Your task to perform on an android device: open app "DuckDuckGo Privacy Browser" Image 0: 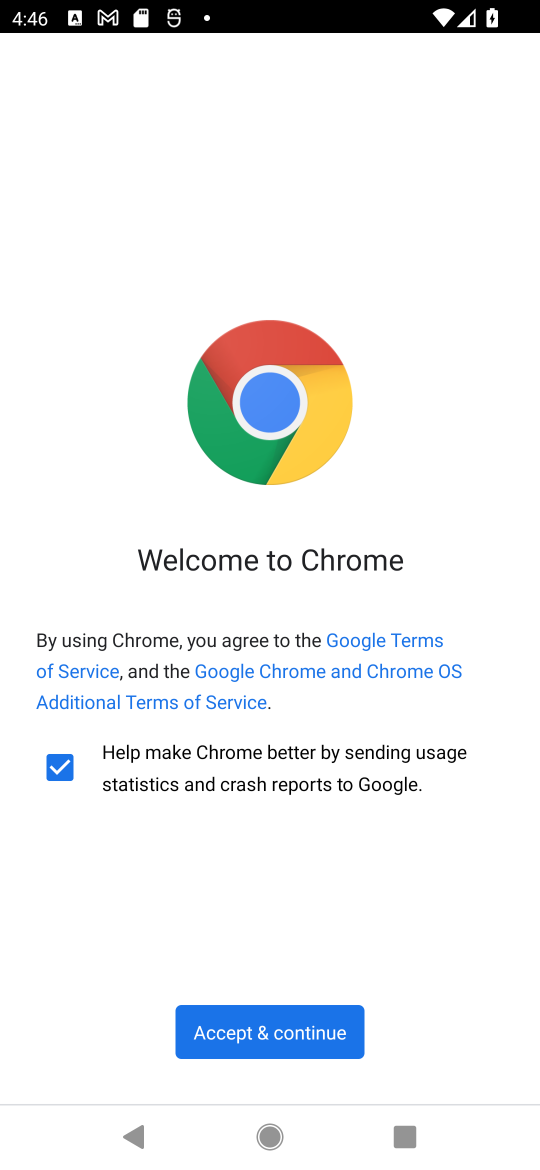
Step 0: press home button
Your task to perform on an android device: open app "DuckDuckGo Privacy Browser" Image 1: 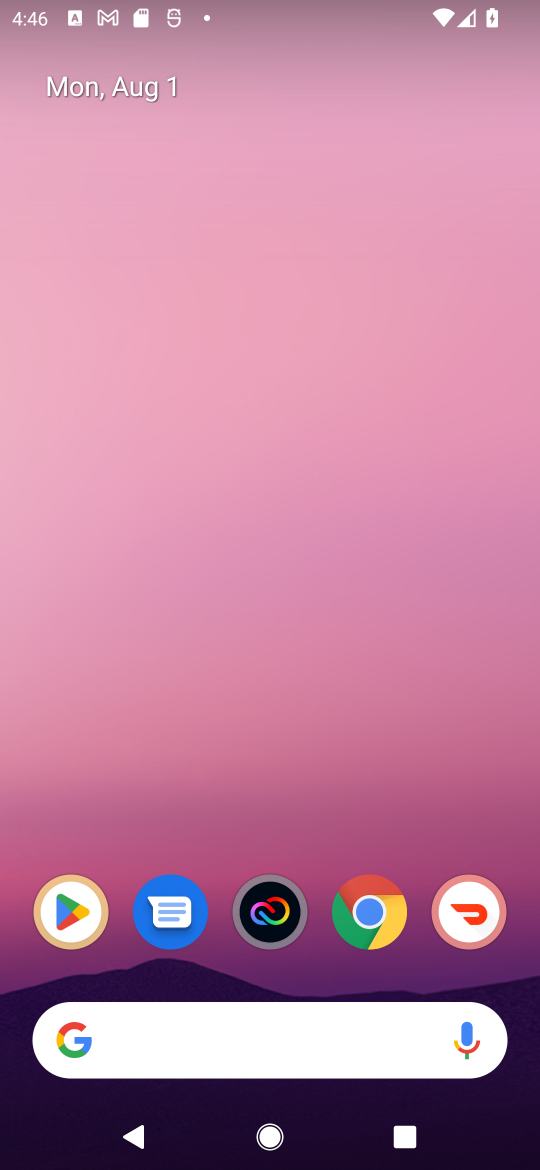
Step 1: click (70, 912)
Your task to perform on an android device: open app "DuckDuckGo Privacy Browser" Image 2: 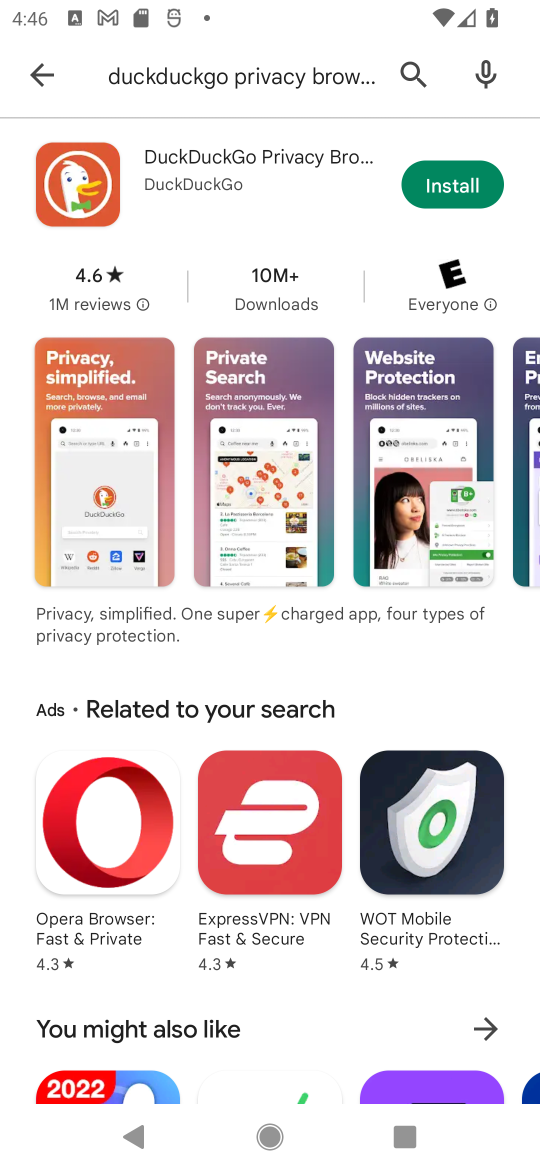
Step 2: task complete